Your task to perform on an android device: Go to internet settings Image 0: 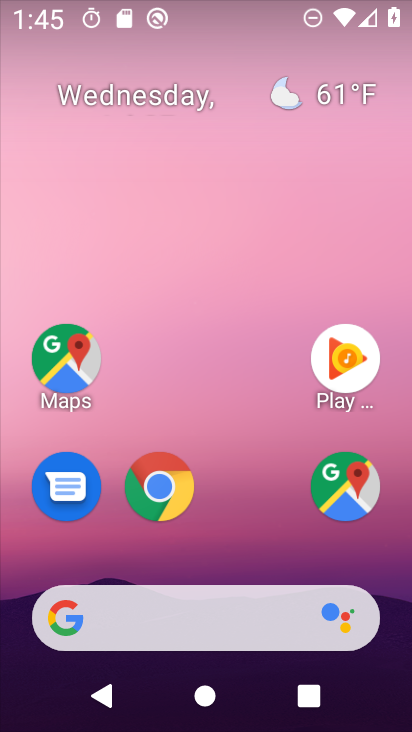
Step 0: press home button
Your task to perform on an android device: Go to internet settings Image 1: 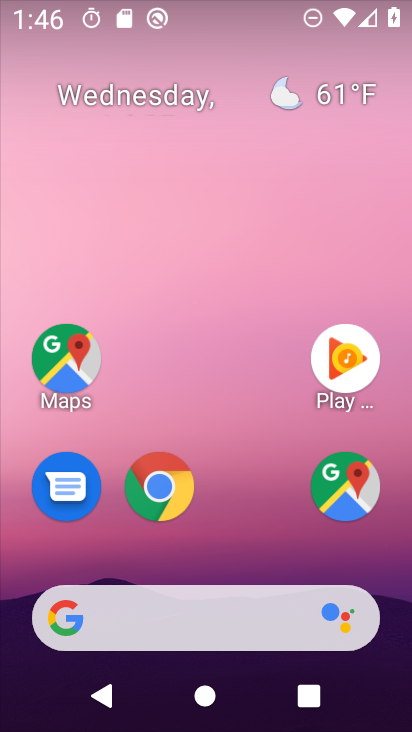
Step 1: drag from (229, 528) to (281, 142)
Your task to perform on an android device: Go to internet settings Image 2: 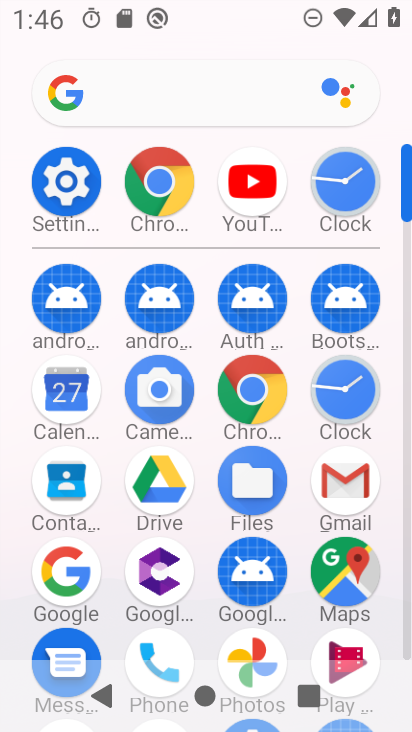
Step 2: click (67, 186)
Your task to perform on an android device: Go to internet settings Image 3: 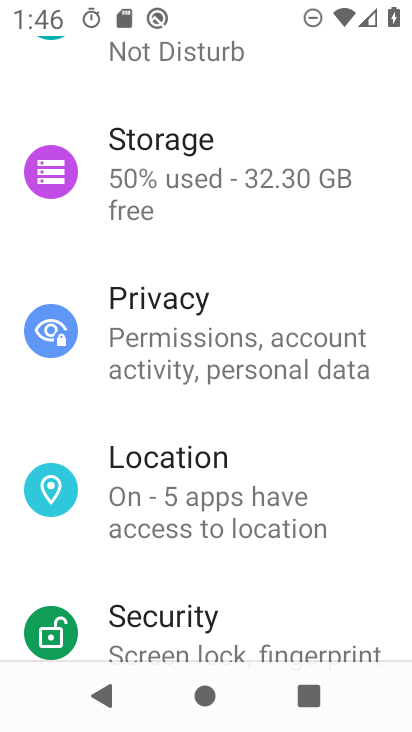
Step 3: drag from (350, 465) to (359, 406)
Your task to perform on an android device: Go to internet settings Image 4: 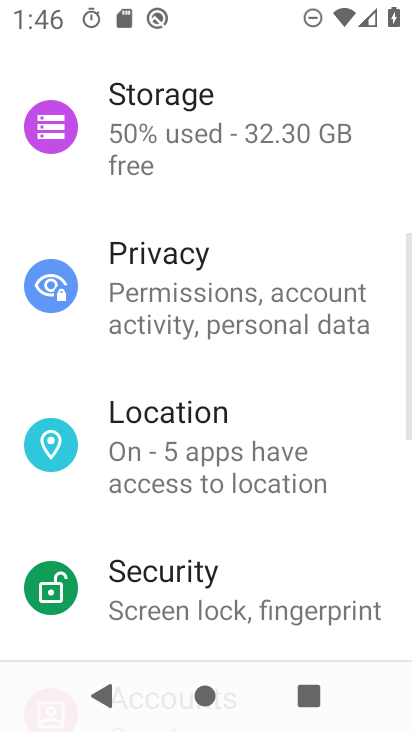
Step 4: drag from (355, 512) to (360, 436)
Your task to perform on an android device: Go to internet settings Image 5: 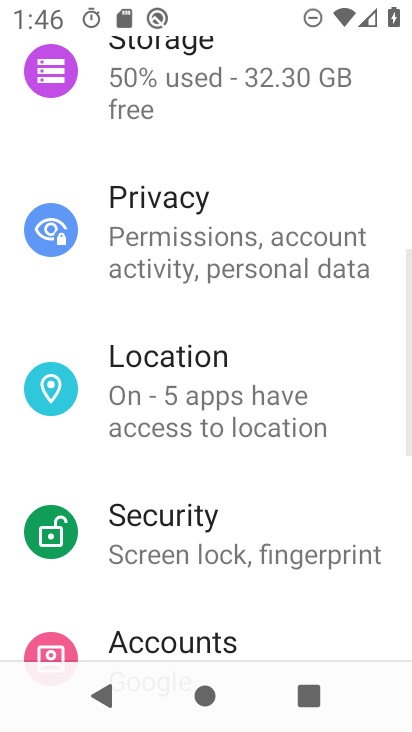
Step 5: drag from (358, 506) to (359, 434)
Your task to perform on an android device: Go to internet settings Image 6: 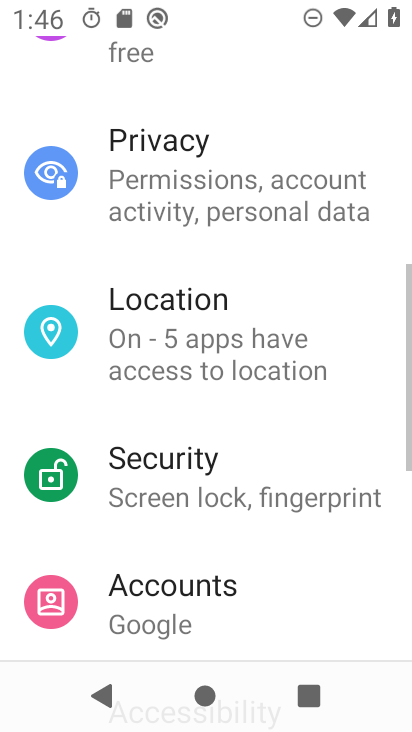
Step 6: drag from (346, 562) to (351, 468)
Your task to perform on an android device: Go to internet settings Image 7: 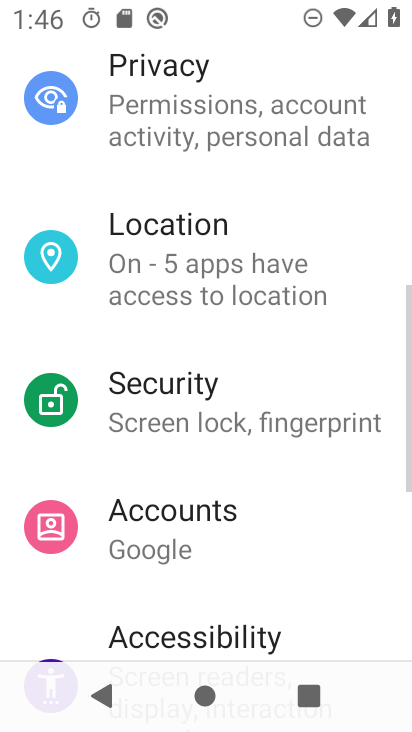
Step 7: drag from (354, 548) to (363, 463)
Your task to perform on an android device: Go to internet settings Image 8: 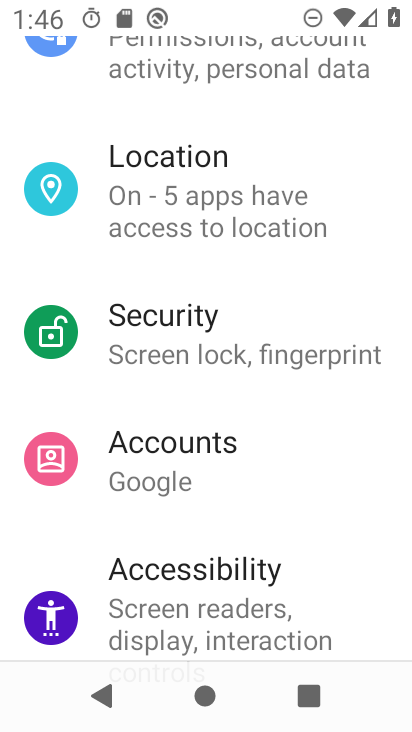
Step 8: drag from (358, 533) to (355, 465)
Your task to perform on an android device: Go to internet settings Image 9: 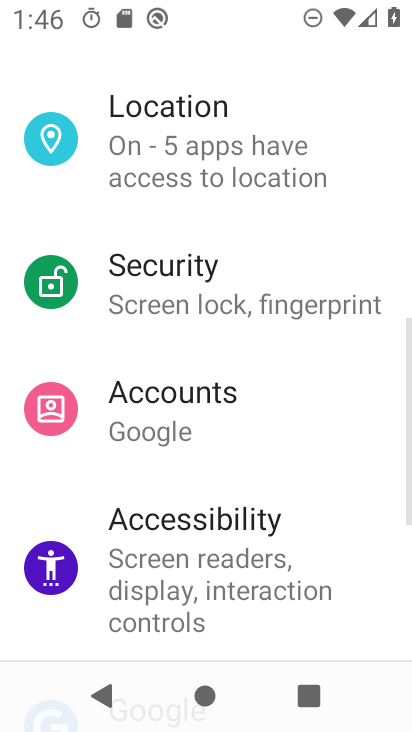
Step 9: drag from (355, 572) to (358, 492)
Your task to perform on an android device: Go to internet settings Image 10: 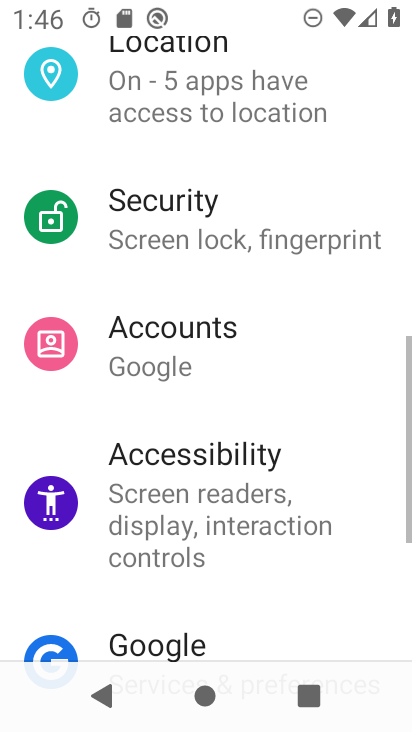
Step 10: drag from (360, 583) to (363, 507)
Your task to perform on an android device: Go to internet settings Image 11: 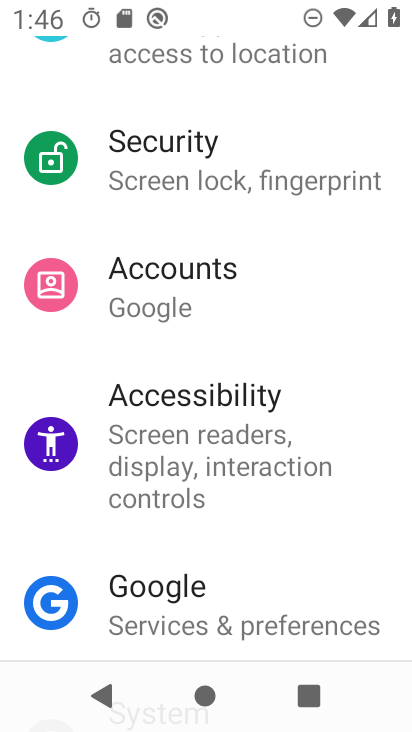
Step 11: drag from (355, 584) to (359, 498)
Your task to perform on an android device: Go to internet settings Image 12: 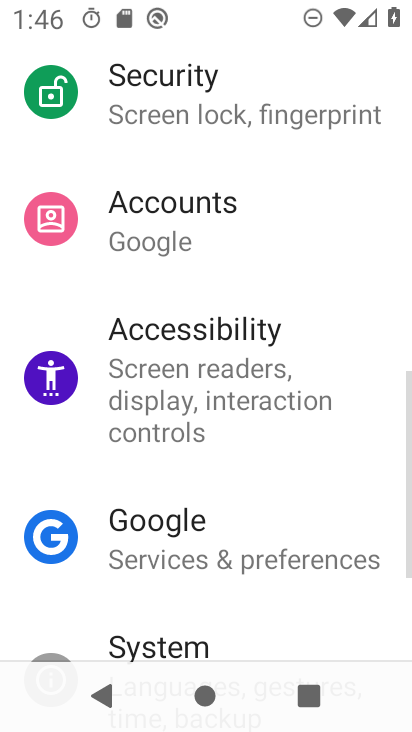
Step 12: drag from (373, 590) to (373, 518)
Your task to perform on an android device: Go to internet settings Image 13: 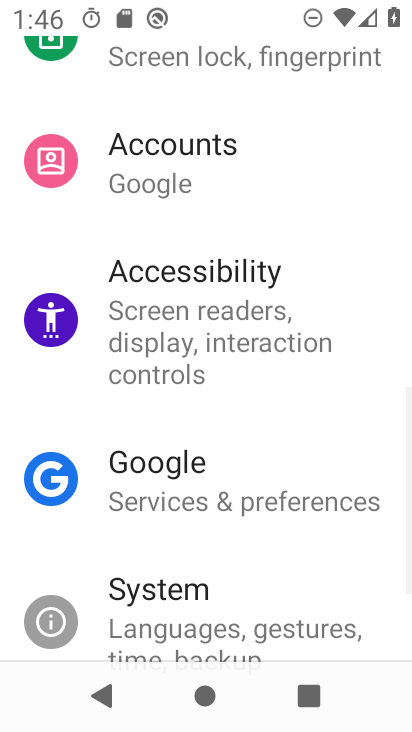
Step 13: drag from (364, 590) to (362, 501)
Your task to perform on an android device: Go to internet settings Image 14: 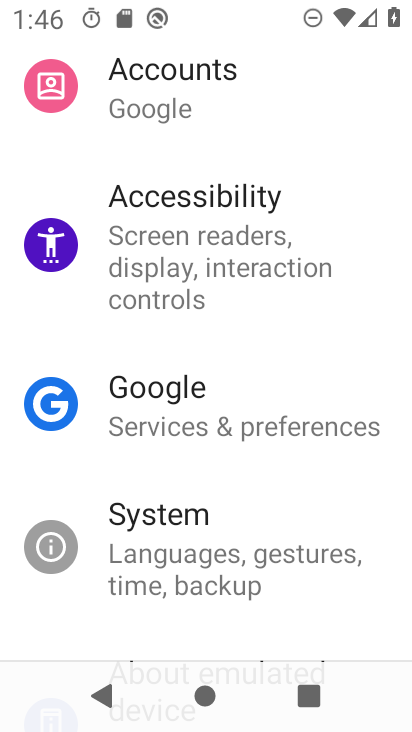
Step 14: drag from (366, 604) to (353, 508)
Your task to perform on an android device: Go to internet settings Image 15: 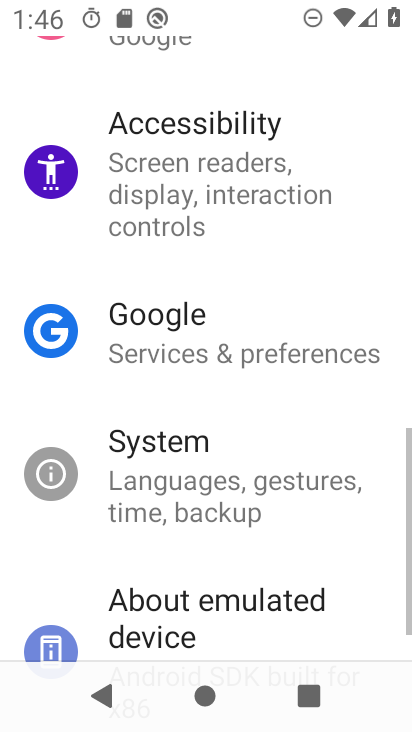
Step 15: drag from (355, 591) to (356, 361)
Your task to perform on an android device: Go to internet settings Image 16: 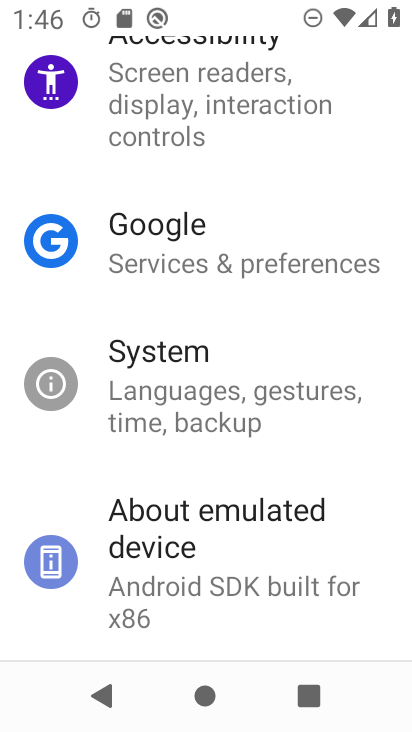
Step 16: drag from (356, 315) to (361, 405)
Your task to perform on an android device: Go to internet settings Image 17: 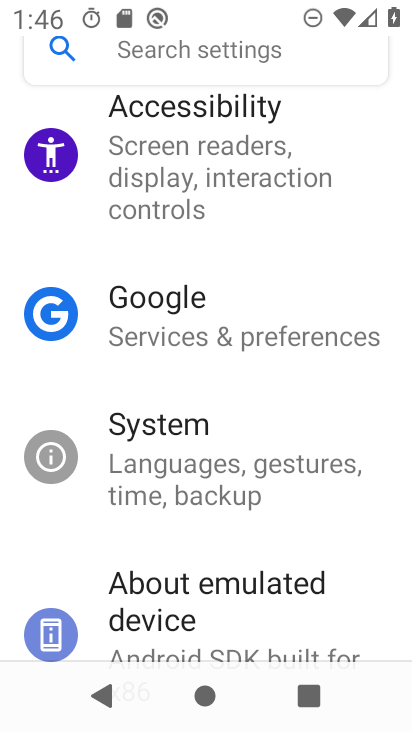
Step 17: drag from (361, 246) to (372, 375)
Your task to perform on an android device: Go to internet settings Image 18: 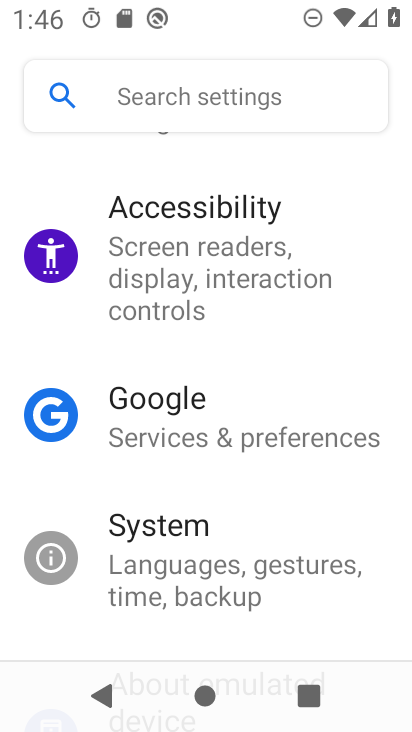
Step 18: drag from (372, 216) to (374, 371)
Your task to perform on an android device: Go to internet settings Image 19: 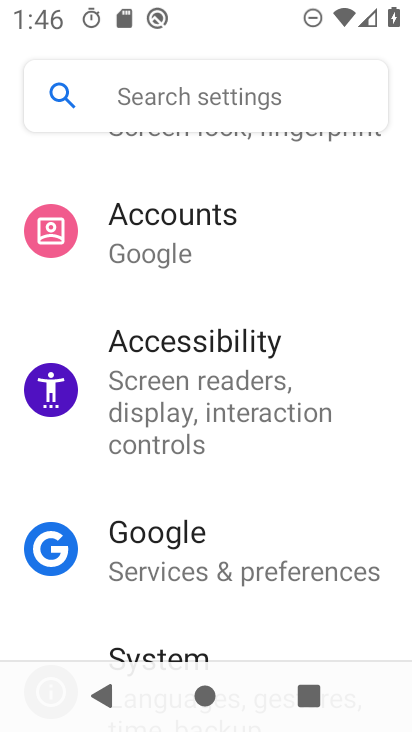
Step 19: drag from (374, 238) to (375, 405)
Your task to perform on an android device: Go to internet settings Image 20: 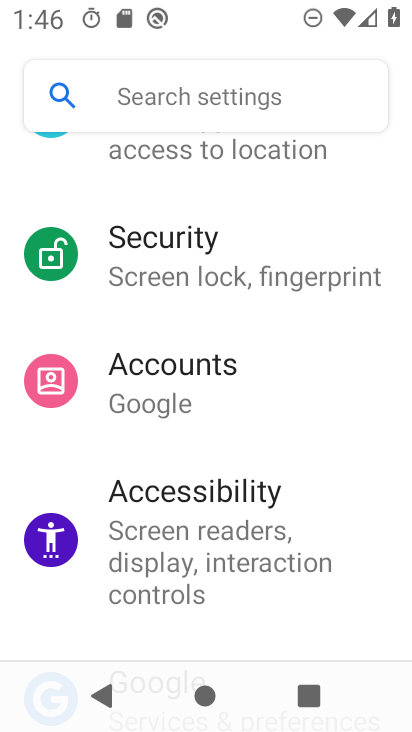
Step 20: drag from (363, 195) to (363, 307)
Your task to perform on an android device: Go to internet settings Image 21: 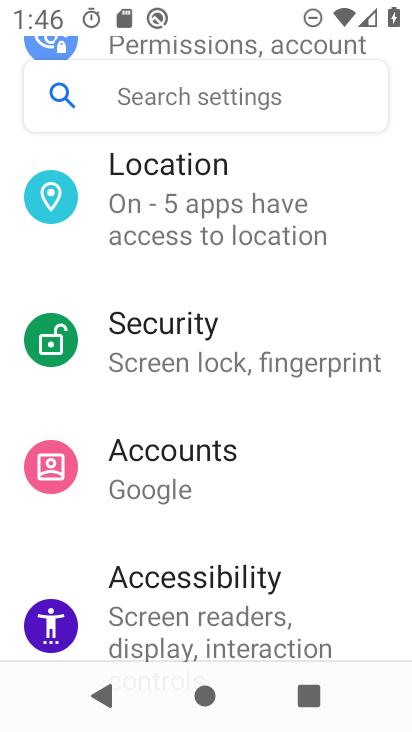
Step 21: drag from (352, 231) to (356, 357)
Your task to perform on an android device: Go to internet settings Image 22: 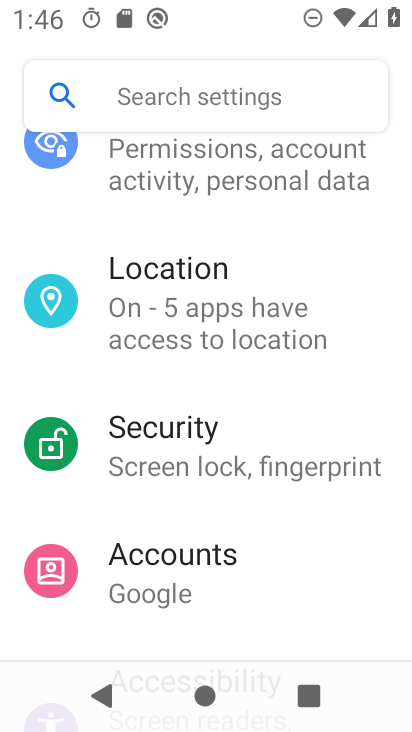
Step 22: drag from (357, 234) to (361, 378)
Your task to perform on an android device: Go to internet settings Image 23: 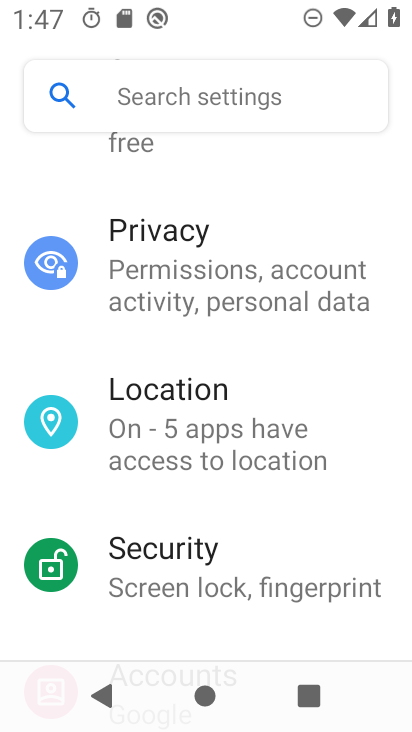
Step 23: drag from (355, 223) to (355, 392)
Your task to perform on an android device: Go to internet settings Image 24: 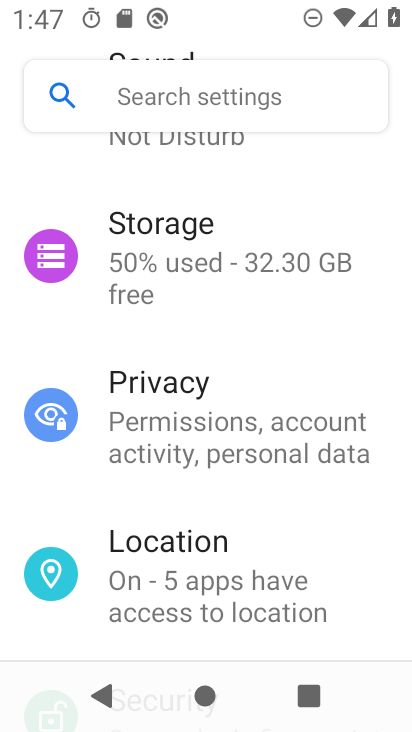
Step 24: drag from (354, 226) to (362, 377)
Your task to perform on an android device: Go to internet settings Image 25: 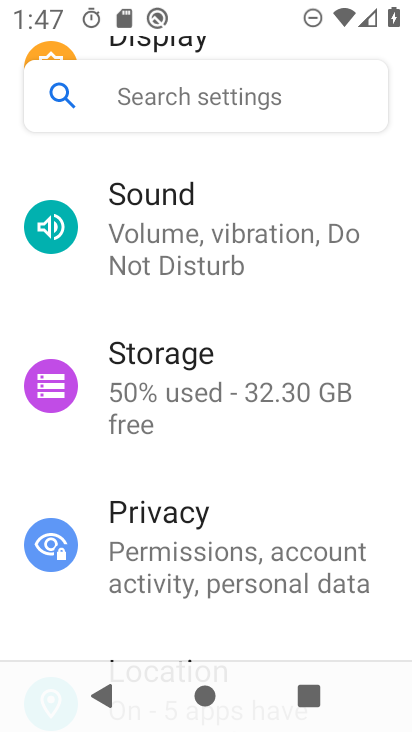
Step 25: drag from (370, 203) to (374, 421)
Your task to perform on an android device: Go to internet settings Image 26: 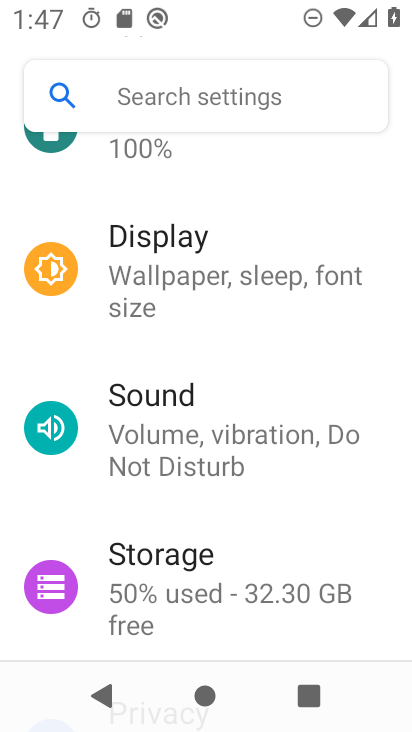
Step 26: drag from (374, 171) to (378, 404)
Your task to perform on an android device: Go to internet settings Image 27: 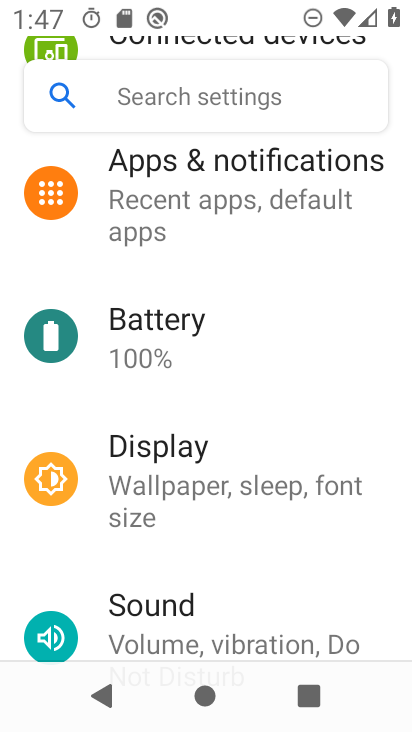
Step 27: drag from (365, 189) to (364, 401)
Your task to perform on an android device: Go to internet settings Image 28: 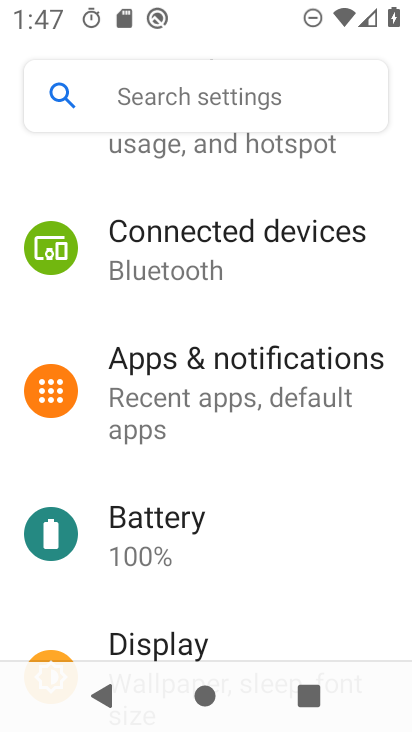
Step 28: drag from (368, 159) to (368, 397)
Your task to perform on an android device: Go to internet settings Image 29: 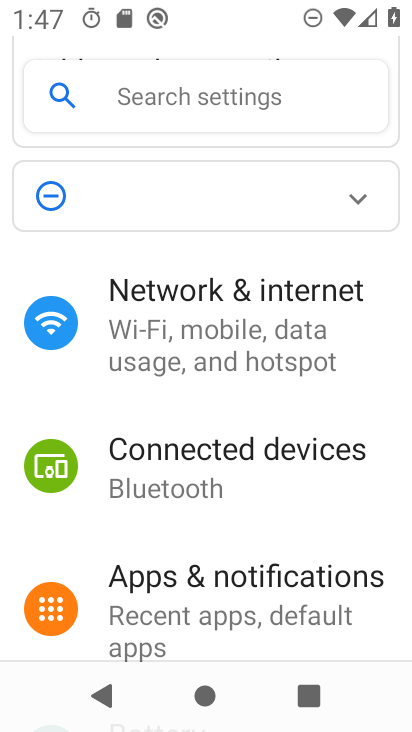
Step 29: click (287, 335)
Your task to perform on an android device: Go to internet settings Image 30: 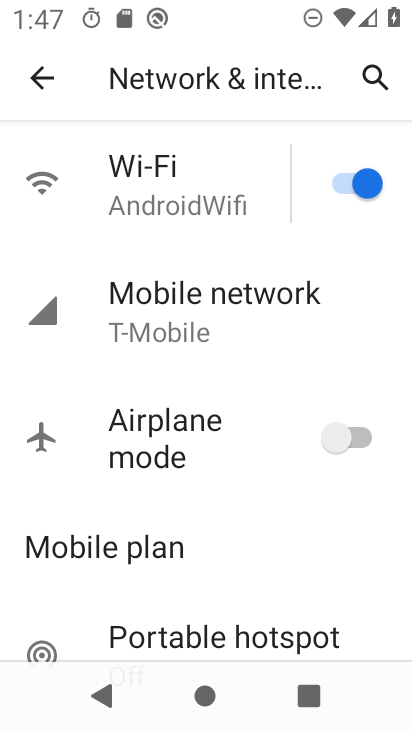
Step 30: task complete